Your task to perform on an android device: set the stopwatch Image 0: 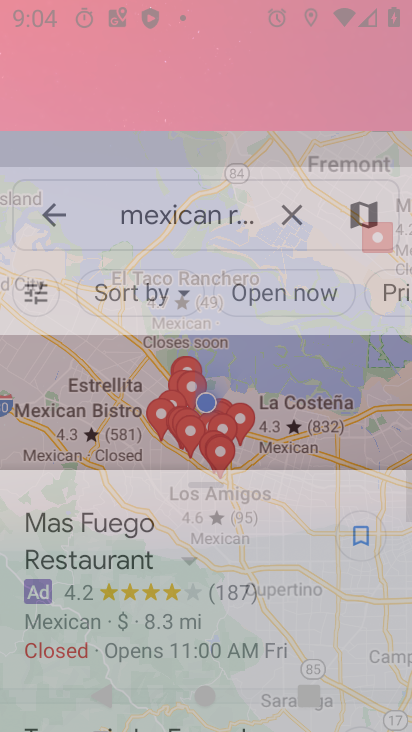
Step 0: press home button
Your task to perform on an android device: set the stopwatch Image 1: 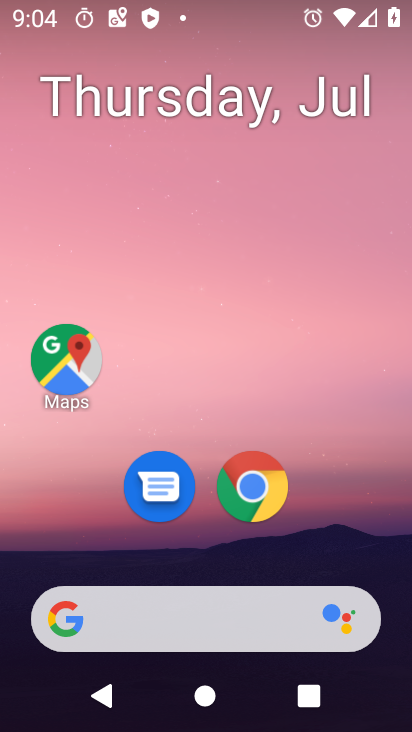
Step 1: drag from (230, 615) to (223, 89)
Your task to perform on an android device: set the stopwatch Image 2: 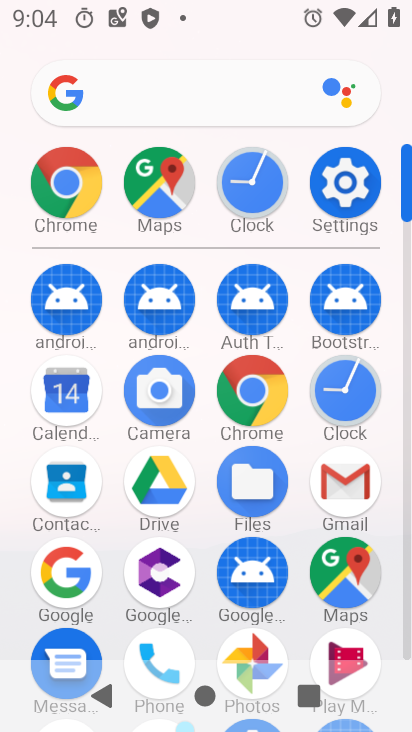
Step 2: click (330, 412)
Your task to perform on an android device: set the stopwatch Image 3: 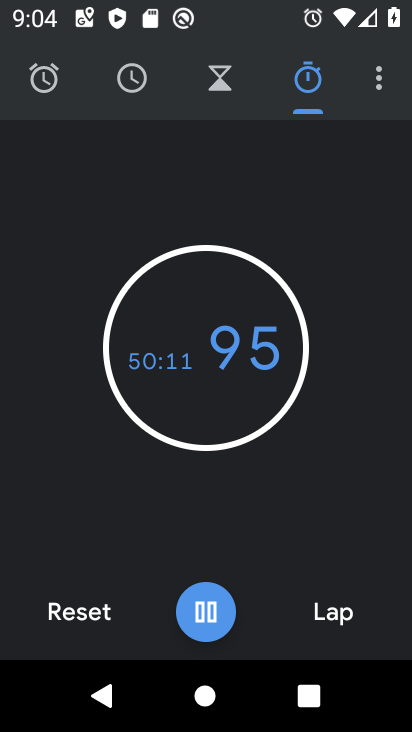
Step 3: click (78, 624)
Your task to perform on an android device: set the stopwatch Image 4: 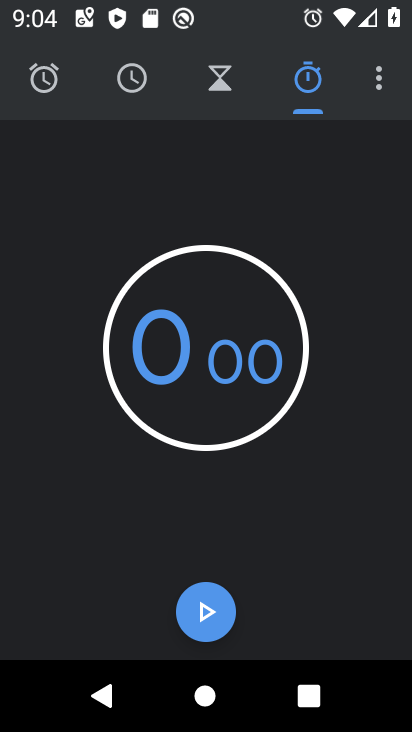
Step 4: click (206, 603)
Your task to perform on an android device: set the stopwatch Image 5: 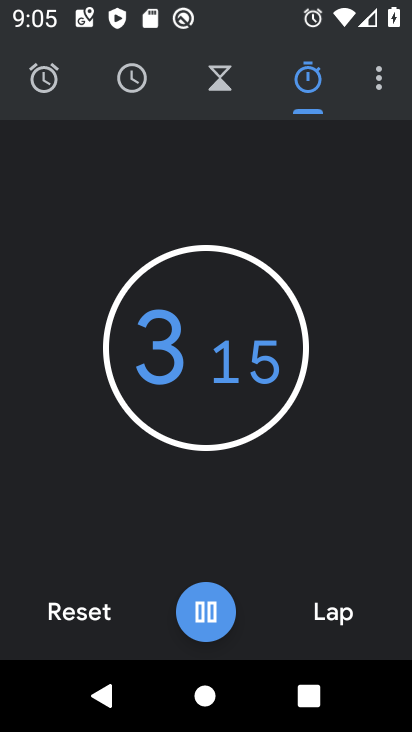
Step 5: task complete